Your task to perform on an android device: move a message to another label in the gmail app Image 0: 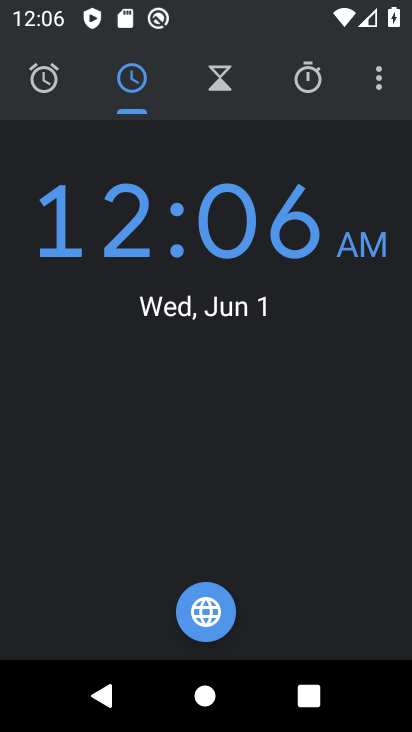
Step 0: press home button
Your task to perform on an android device: move a message to another label in the gmail app Image 1: 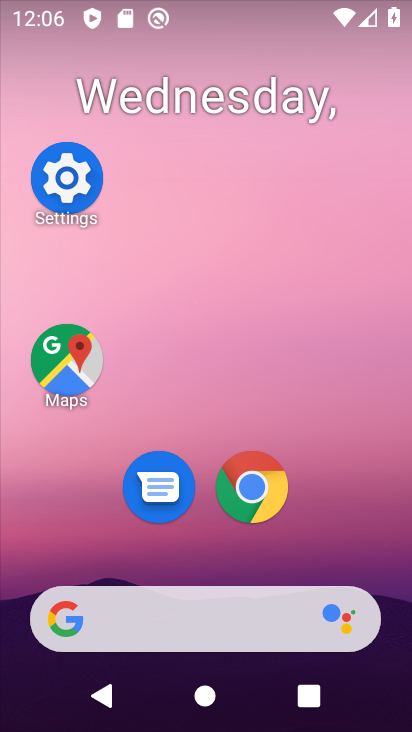
Step 1: drag from (293, 310) to (248, 40)
Your task to perform on an android device: move a message to another label in the gmail app Image 2: 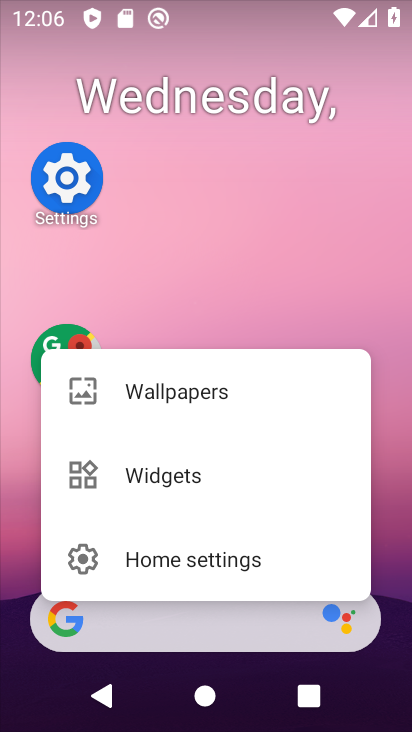
Step 2: click (333, 294)
Your task to perform on an android device: move a message to another label in the gmail app Image 3: 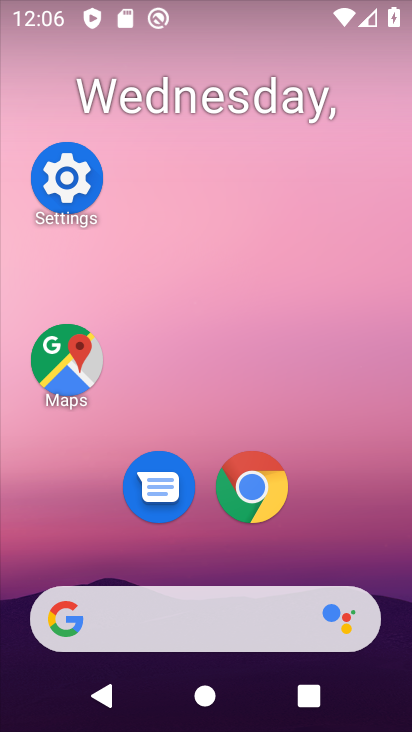
Step 3: click (339, 139)
Your task to perform on an android device: move a message to another label in the gmail app Image 4: 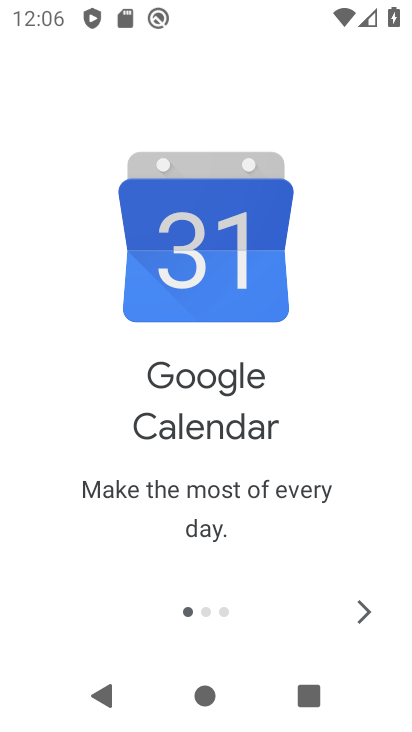
Step 4: press home button
Your task to perform on an android device: move a message to another label in the gmail app Image 5: 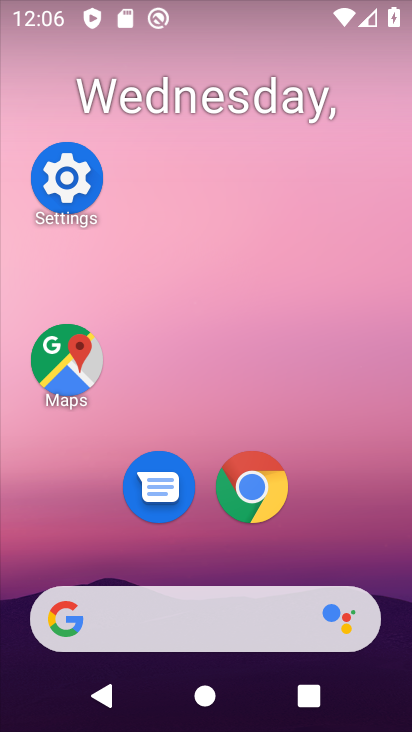
Step 5: drag from (367, 546) to (315, 166)
Your task to perform on an android device: move a message to another label in the gmail app Image 6: 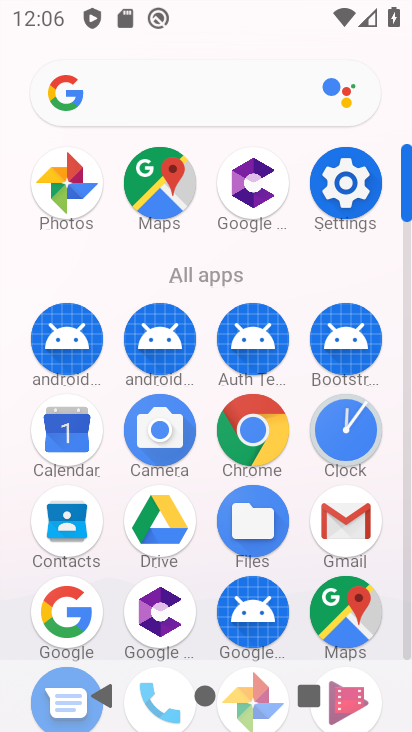
Step 6: drag from (350, 517) to (169, 344)
Your task to perform on an android device: move a message to another label in the gmail app Image 7: 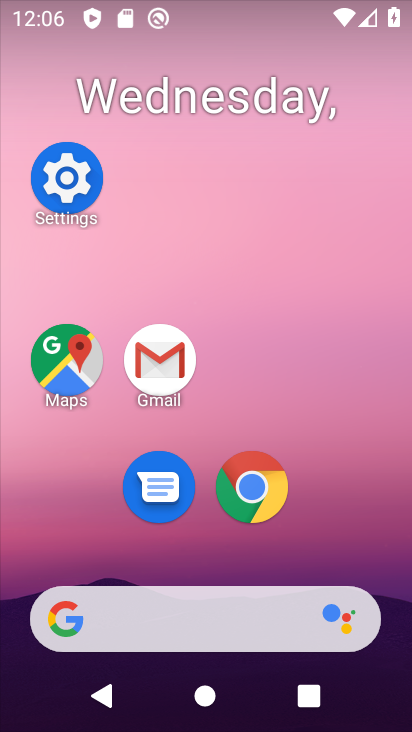
Step 7: click (169, 344)
Your task to perform on an android device: move a message to another label in the gmail app Image 8: 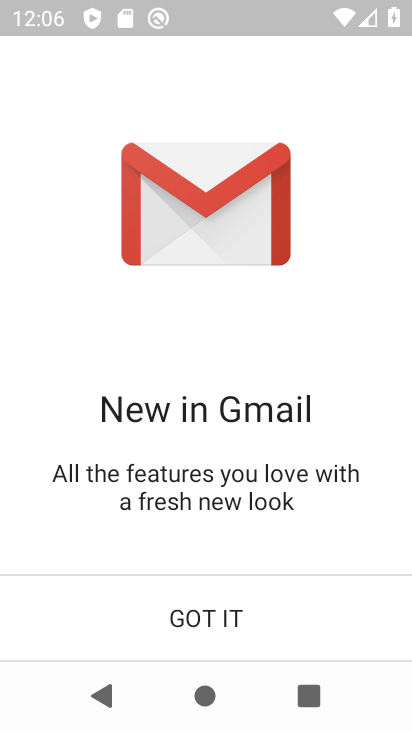
Step 8: click (130, 630)
Your task to perform on an android device: move a message to another label in the gmail app Image 9: 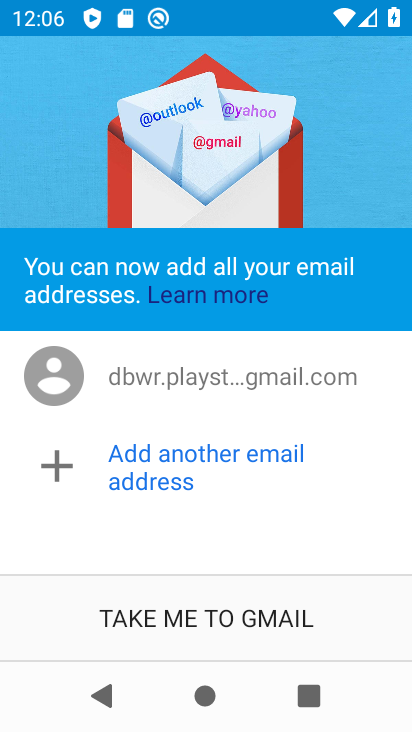
Step 9: click (126, 605)
Your task to perform on an android device: move a message to another label in the gmail app Image 10: 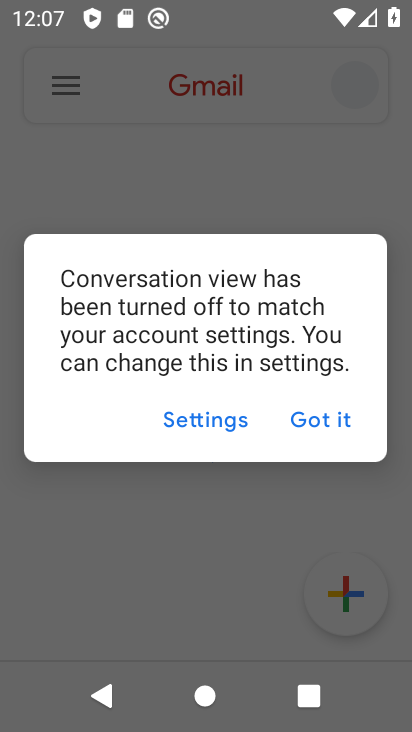
Step 10: click (347, 422)
Your task to perform on an android device: move a message to another label in the gmail app Image 11: 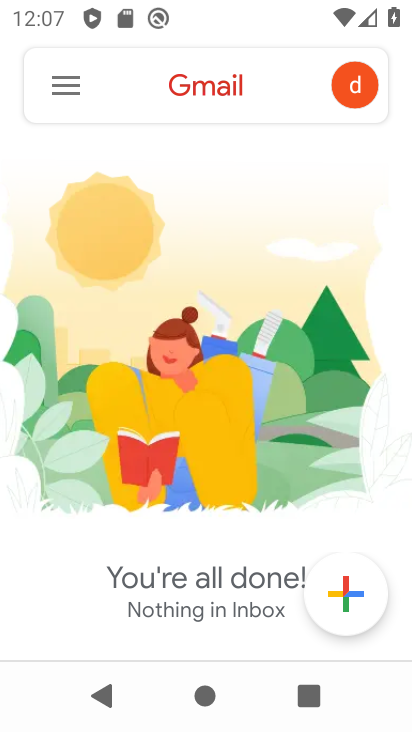
Step 11: click (84, 70)
Your task to perform on an android device: move a message to another label in the gmail app Image 12: 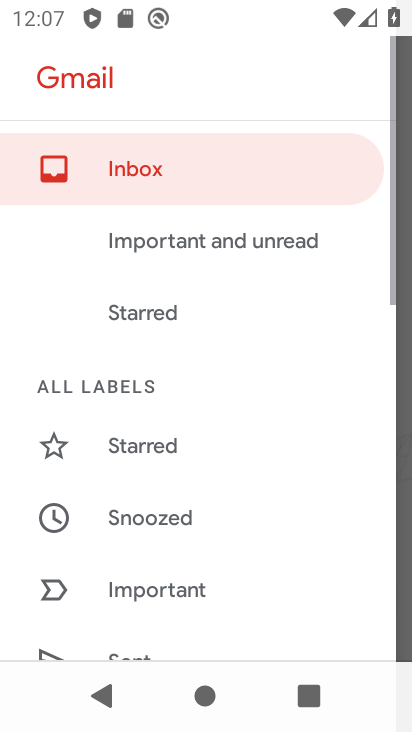
Step 12: drag from (207, 533) to (130, 94)
Your task to perform on an android device: move a message to another label in the gmail app Image 13: 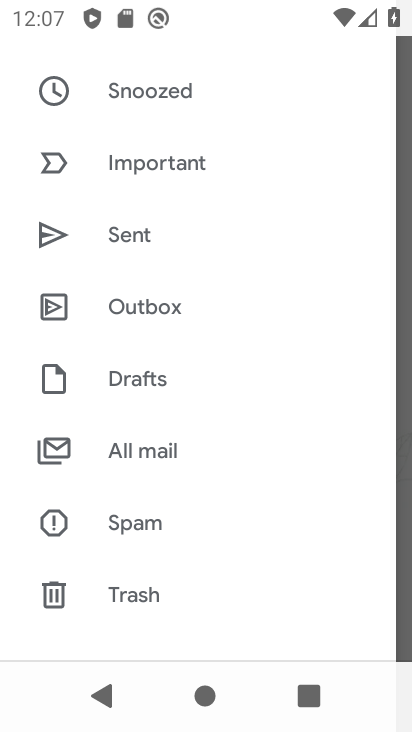
Step 13: click (203, 454)
Your task to perform on an android device: move a message to another label in the gmail app Image 14: 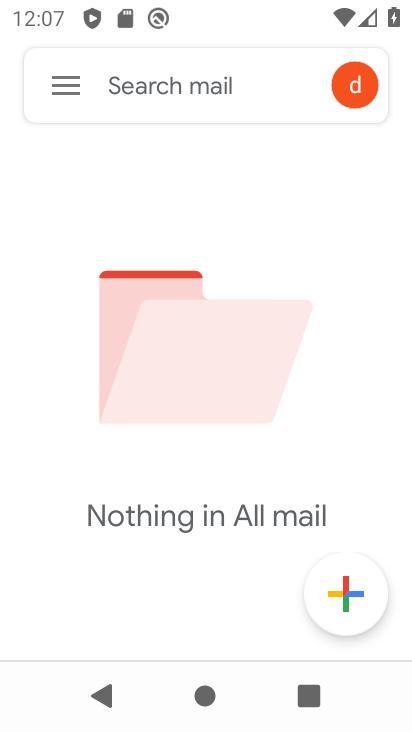
Step 14: task complete